Your task to perform on an android device: Open location settings Image 0: 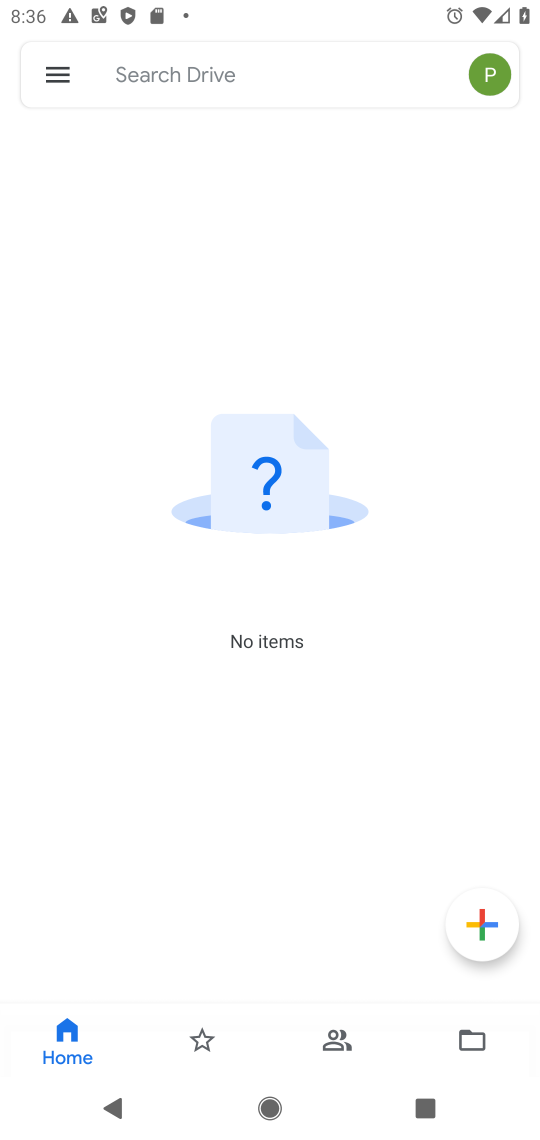
Step 0: press home button
Your task to perform on an android device: Open location settings Image 1: 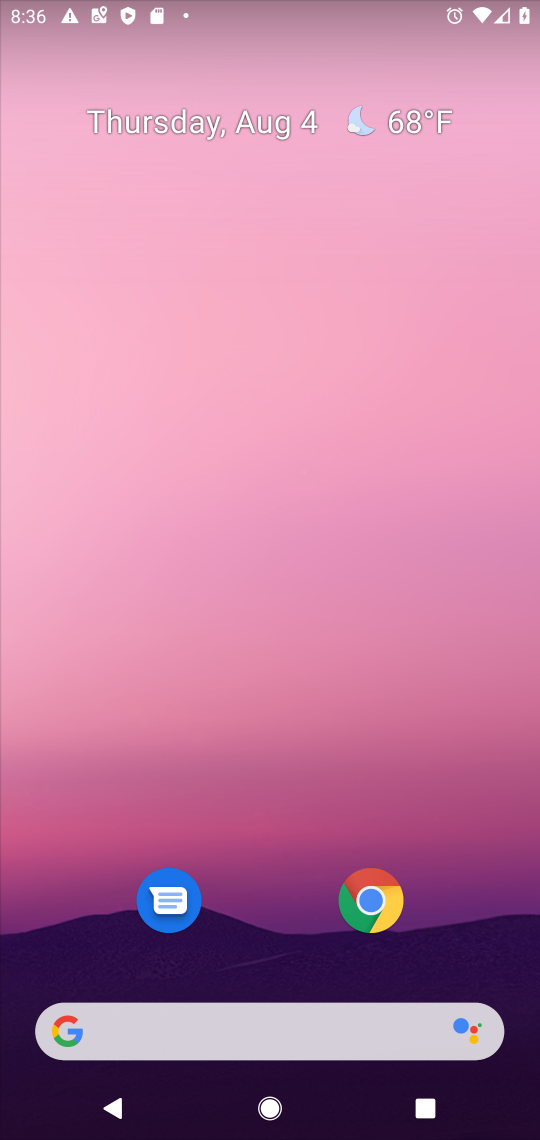
Step 1: drag from (189, 1044) to (262, 52)
Your task to perform on an android device: Open location settings Image 2: 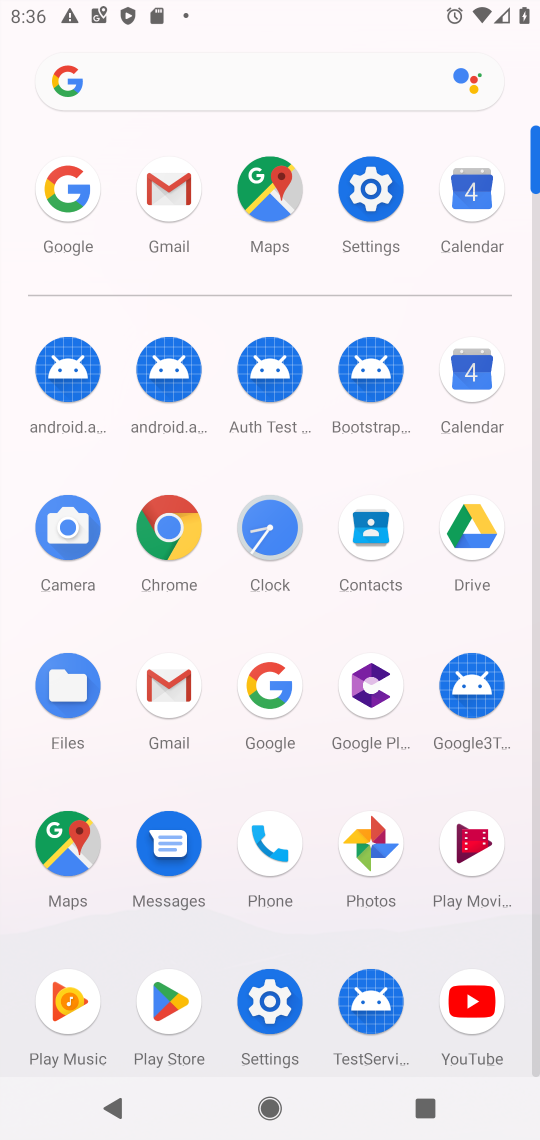
Step 2: click (272, 998)
Your task to perform on an android device: Open location settings Image 3: 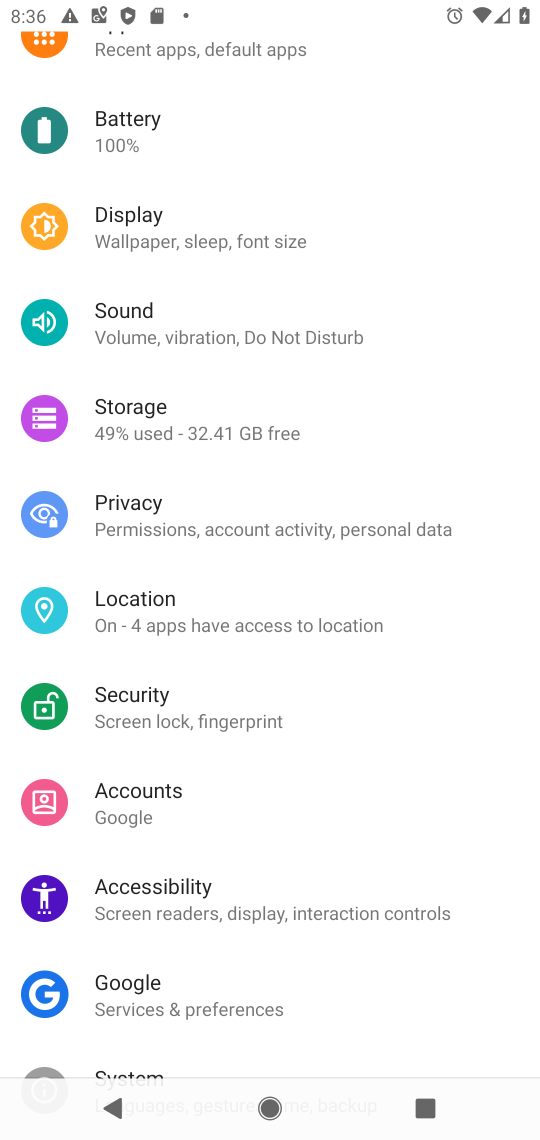
Step 3: click (224, 622)
Your task to perform on an android device: Open location settings Image 4: 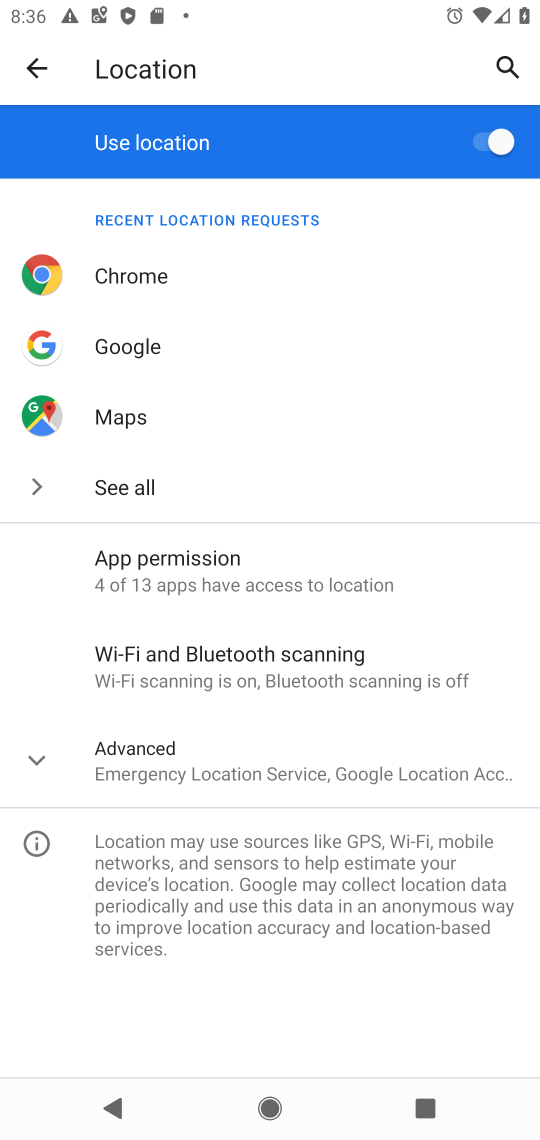
Step 4: task complete